Your task to perform on an android device: Show me recent news Image 0: 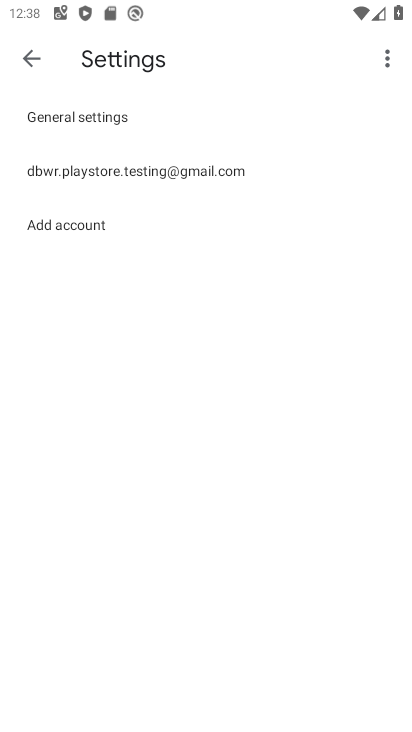
Step 0: press home button
Your task to perform on an android device: Show me recent news Image 1: 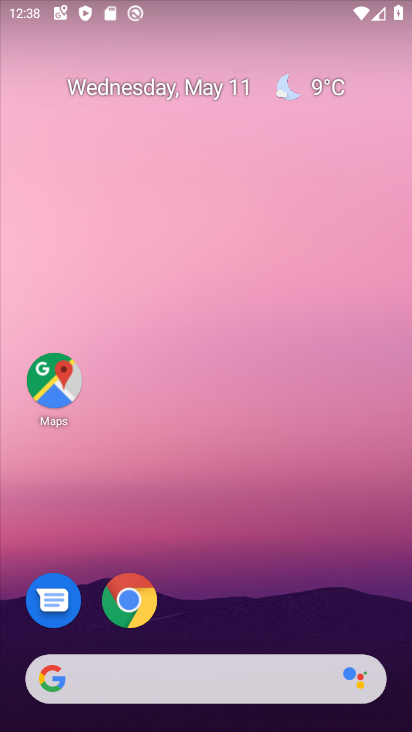
Step 1: click (204, 681)
Your task to perform on an android device: Show me recent news Image 2: 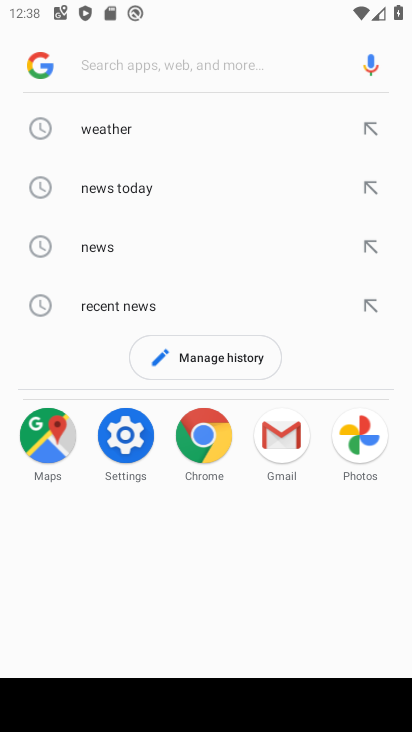
Step 2: click (160, 304)
Your task to perform on an android device: Show me recent news Image 3: 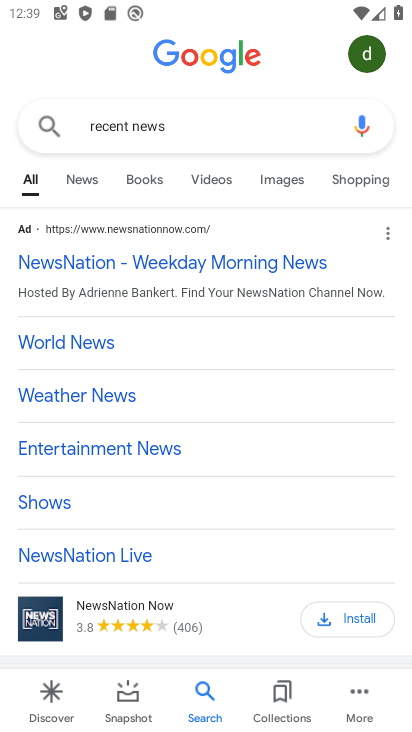
Step 3: task complete